Your task to perform on an android device: Open Reddit.com Image 0: 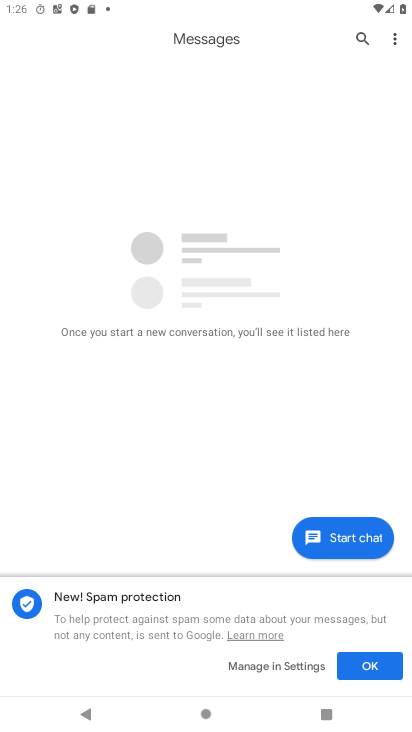
Step 0: press home button
Your task to perform on an android device: Open Reddit.com Image 1: 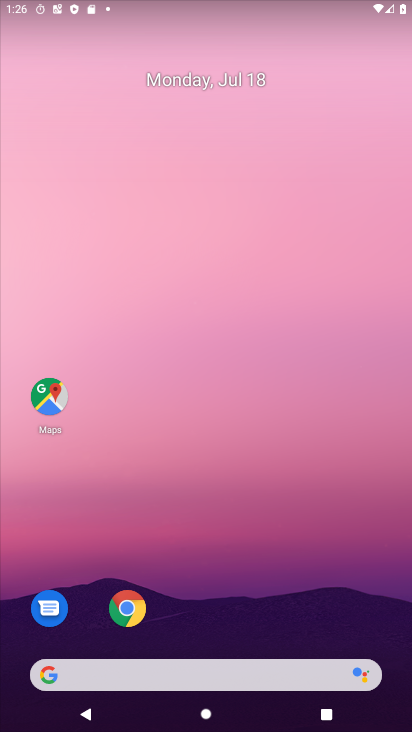
Step 1: click (127, 608)
Your task to perform on an android device: Open Reddit.com Image 2: 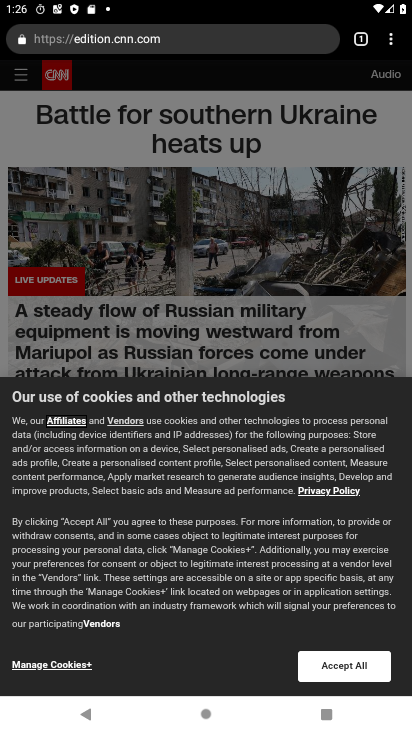
Step 2: click (388, 42)
Your task to perform on an android device: Open Reddit.com Image 3: 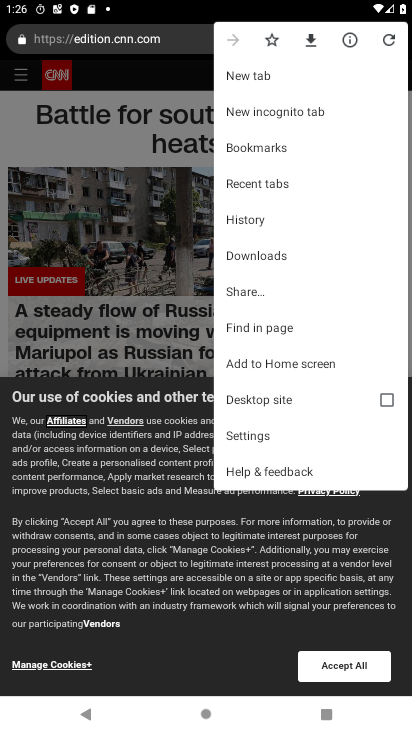
Step 3: click (254, 75)
Your task to perform on an android device: Open Reddit.com Image 4: 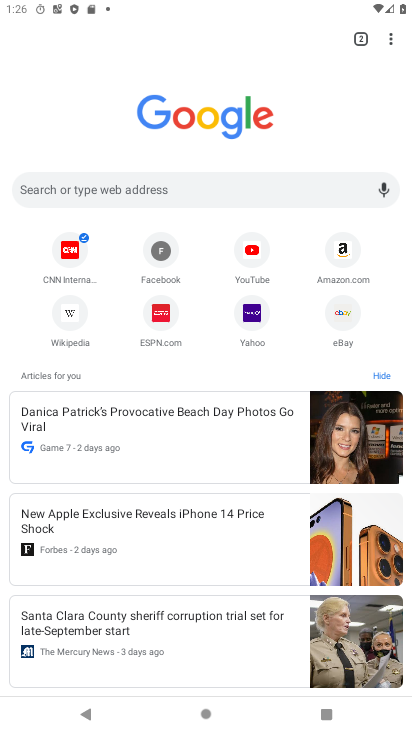
Step 4: click (219, 185)
Your task to perform on an android device: Open Reddit.com Image 5: 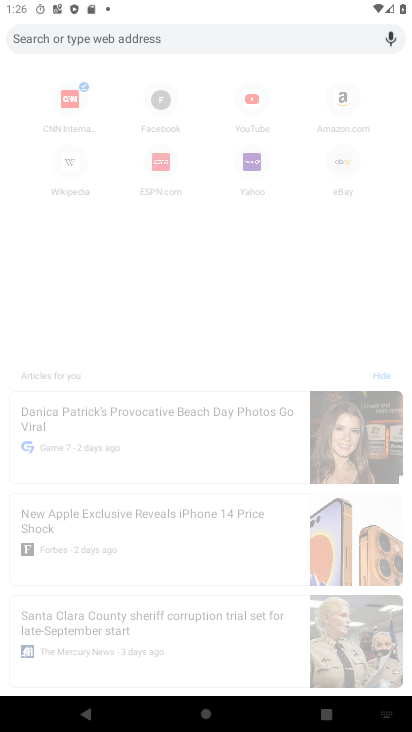
Step 5: type "Reddit.com"
Your task to perform on an android device: Open Reddit.com Image 6: 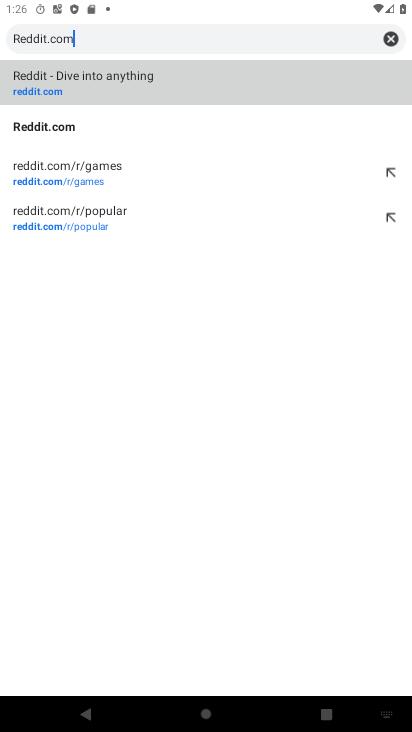
Step 6: click (105, 80)
Your task to perform on an android device: Open Reddit.com Image 7: 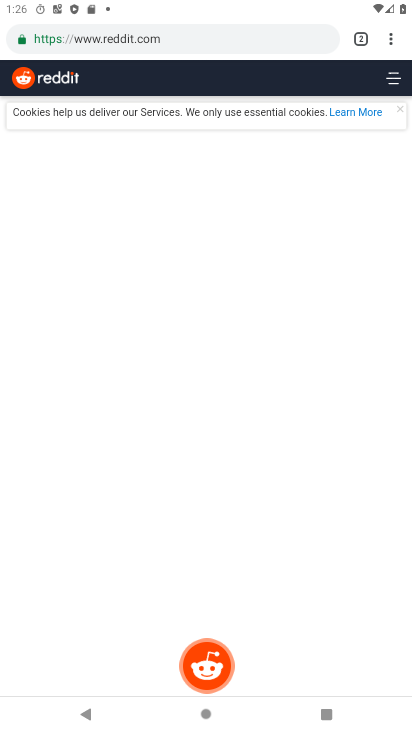
Step 7: task complete